Your task to perform on an android device: When is my next appointment? Image 0: 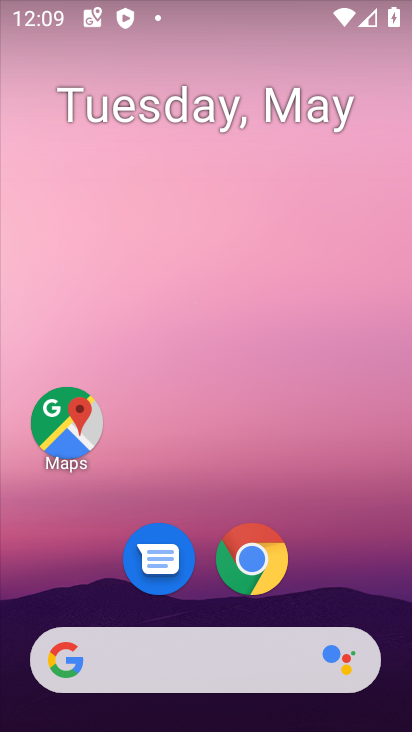
Step 0: drag from (351, 588) to (286, 240)
Your task to perform on an android device: When is my next appointment? Image 1: 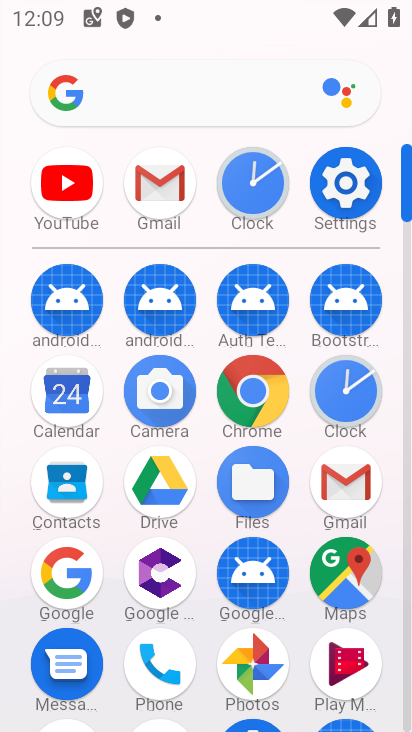
Step 1: click (99, 387)
Your task to perform on an android device: When is my next appointment? Image 2: 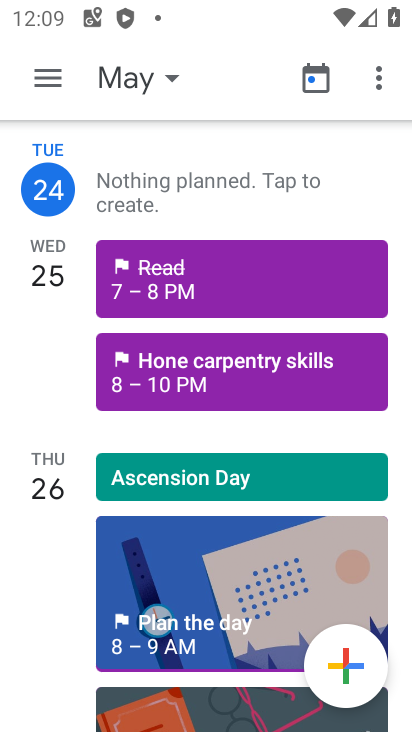
Step 2: task complete